Your task to perform on an android device: set an alarm Image 0: 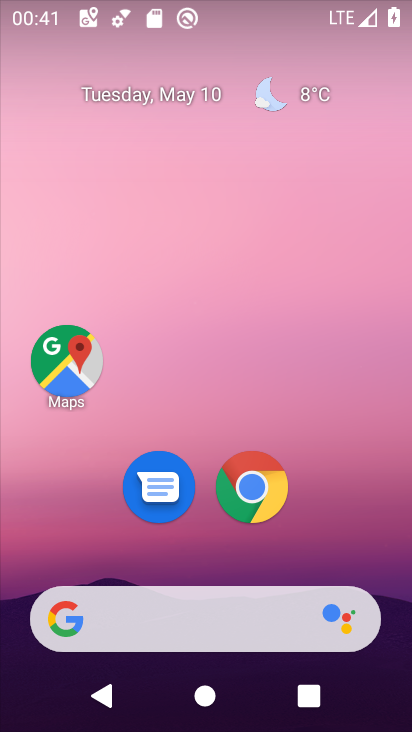
Step 0: drag from (202, 544) to (240, 43)
Your task to perform on an android device: set an alarm Image 1: 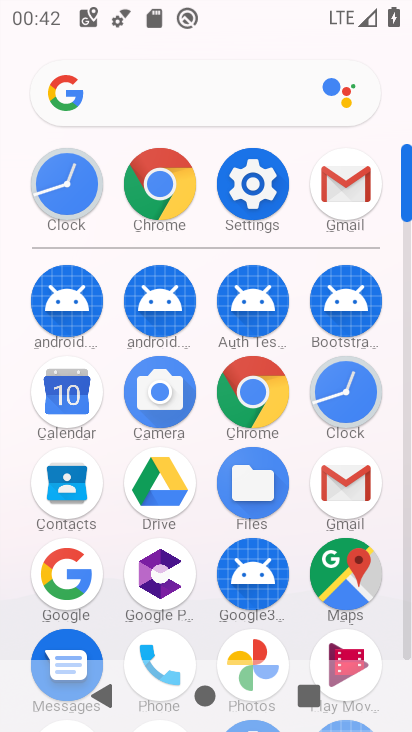
Step 1: click (345, 393)
Your task to perform on an android device: set an alarm Image 2: 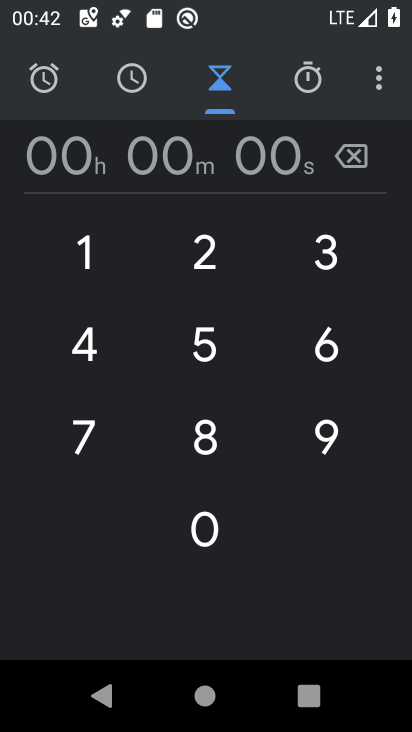
Step 2: click (88, 255)
Your task to perform on an android device: set an alarm Image 3: 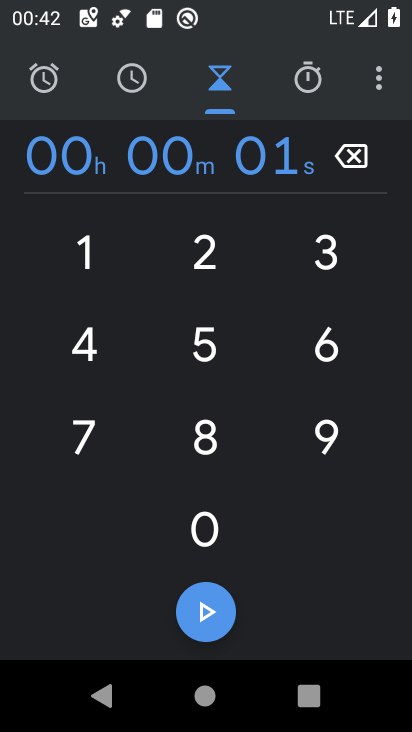
Step 3: click (194, 532)
Your task to perform on an android device: set an alarm Image 4: 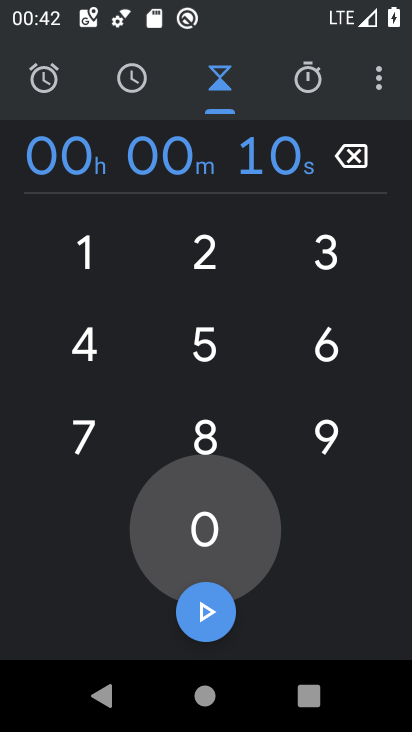
Step 4: click (194, 532)
Your task to perform on an android device: set an alarm Image 5: 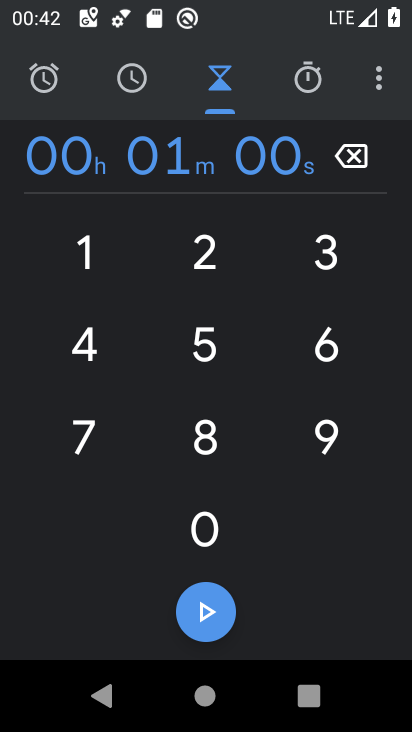
Step 5: click (211, 530)
Your task to perform on an android device: set an alarm Image 6: 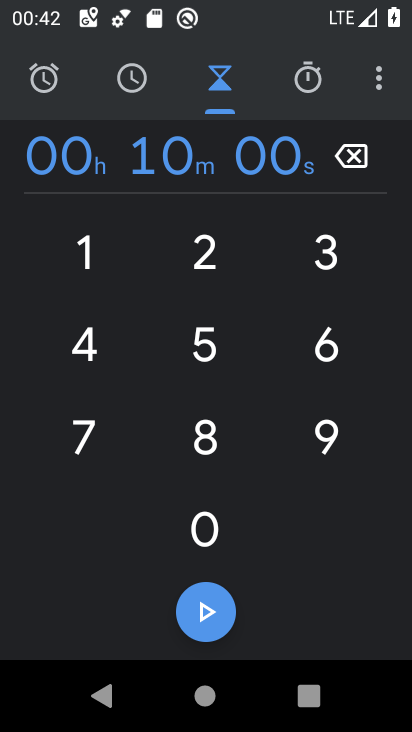
Step 6: click (206, 627)
Your task to perform on an android device: set an alarm Image 7: 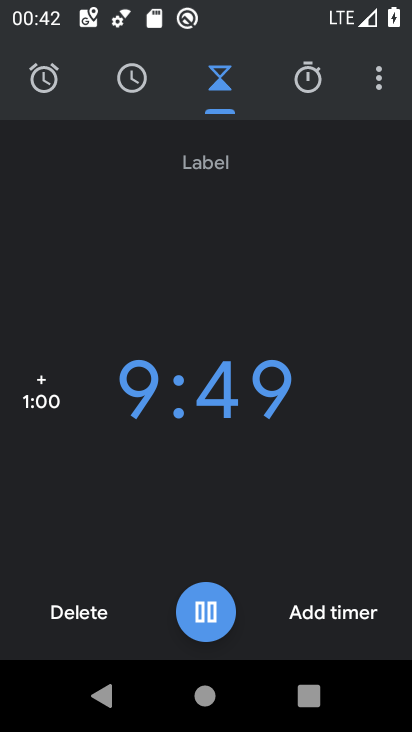
Step 7: task complete